Your task to perform on an android device: Show me popular games on the Play Store Image 0: 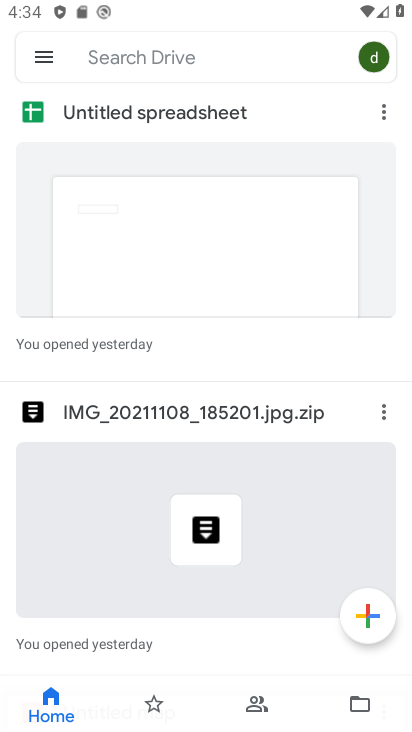
Step 0: press home button
Your task to perform on an android device: Show me popular games on the Play Store Image 1: 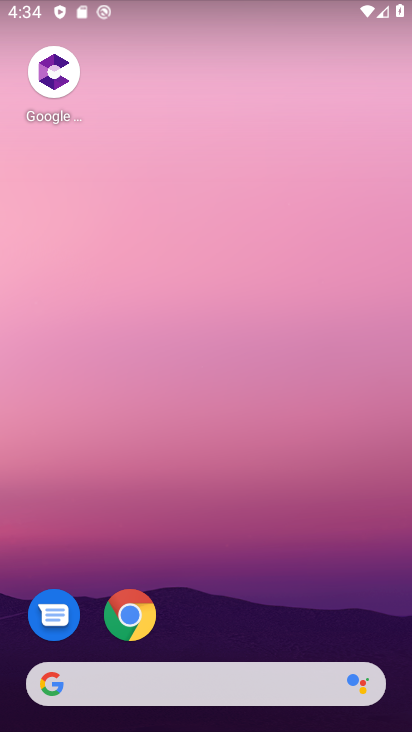
Step 1: drag from (167, 661) to (282, 145)
Your task to perform on an android device: Show me popular games on the Play Store Image 2: 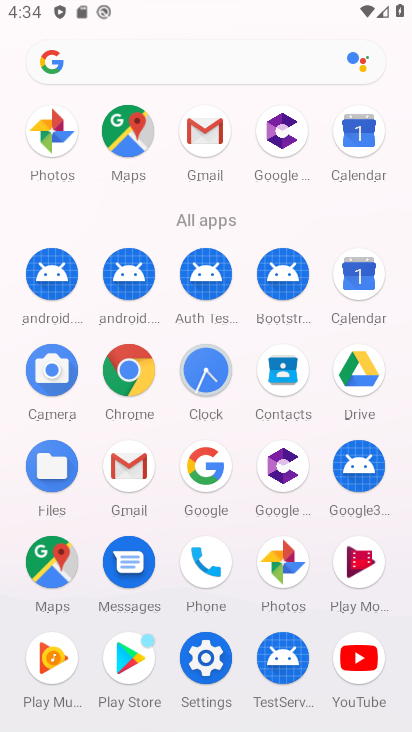
Step 2: drag from (160, 628) to (234, 414)
Your task to perform on an android device: Show me popular games on the Play Store Image 3: 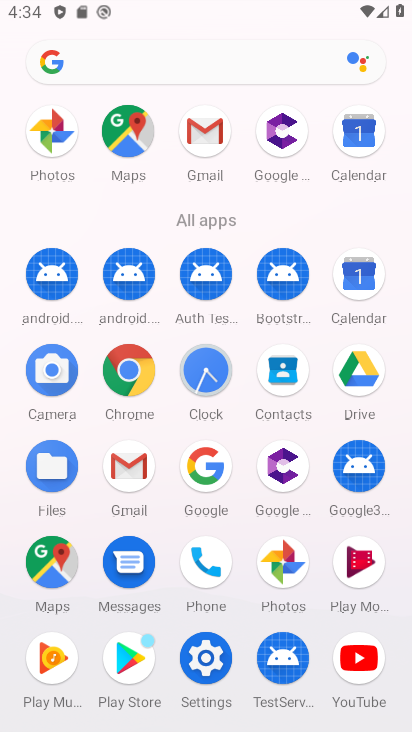
Step 3: click (132, 642)
Your task to perform on an android device: Show me popular games on the Play Store Image 4: 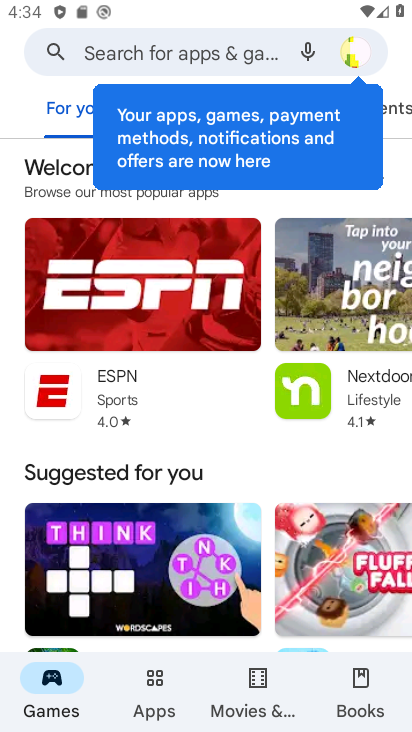
Step 4: task complete